Your task to perform on an android device: turn off notifications in google photos Image 0: 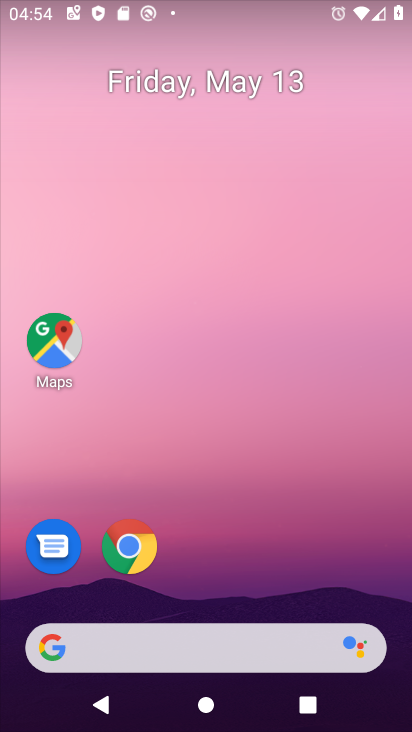
Step 0: drag from (220, 520) to (358, 0)
Your task to perform on an android device: turn off notifications in google photos Image 1: 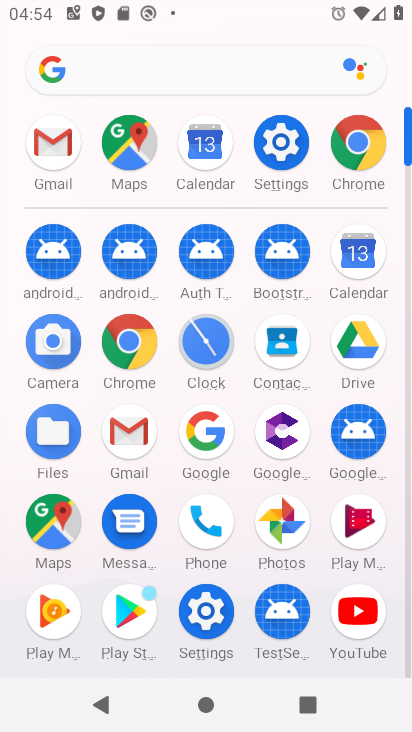
Step 1: click (289, 534)
Your task to perform on an android device: turn off notifications in google photos Image 2: 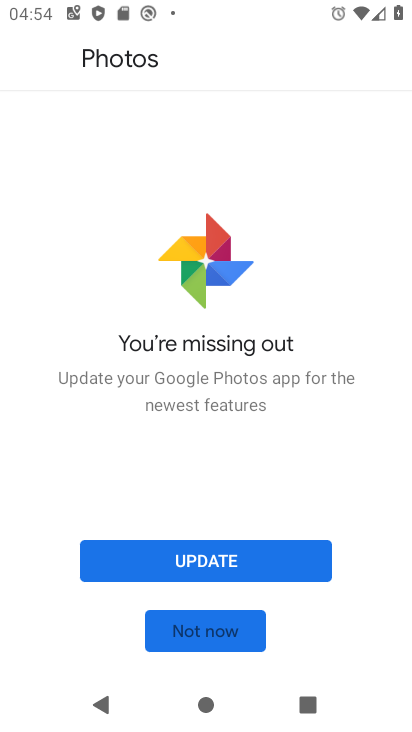
Step 2: click (235, 630)
Your task to perform on an android device: turn off notifications in google photos Image 3: 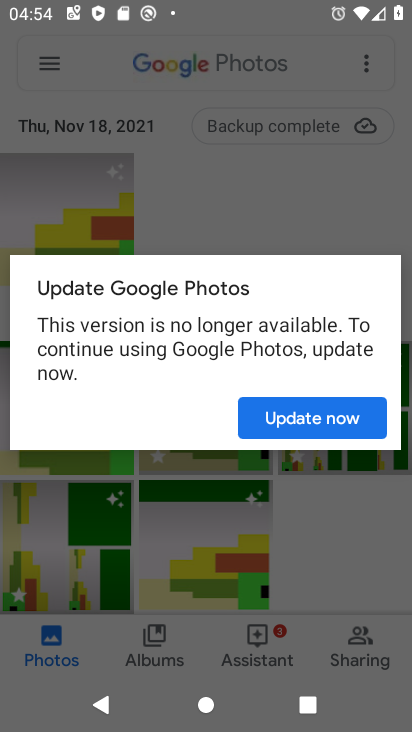
Step 3: click (315, 417)
Your task to perform on an android device: turn off notifications in google photos Image 4: 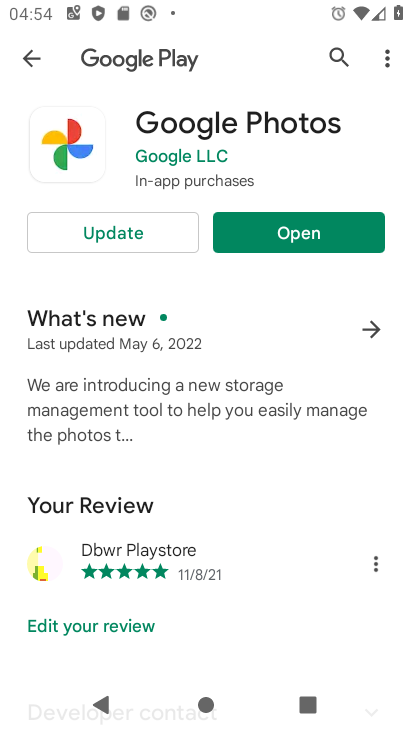
Step 4: click (256, 236)
Your task to perform on an android device: turn off notifications in google photos Image 5: 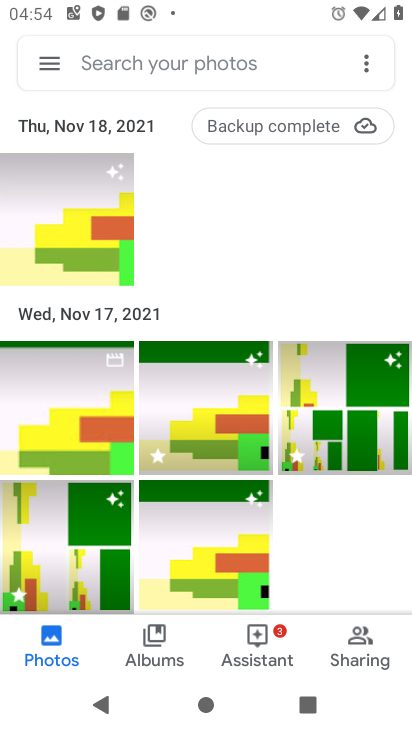
Step 5: click (59, 63)
Your task to perform on an android device: turn off notifications in google photos Image 6: 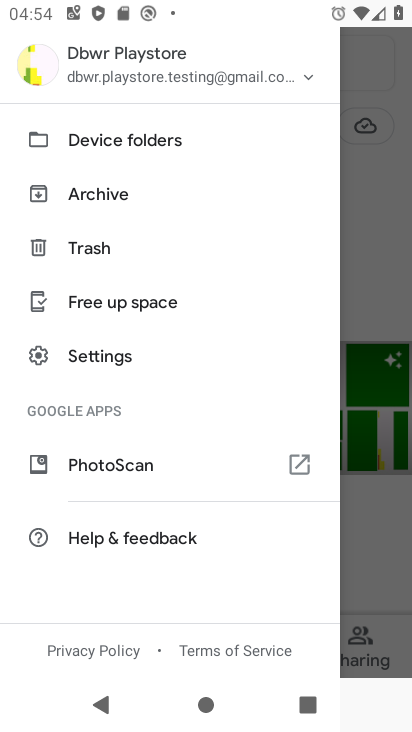
Step 6: click (103, 366)
Your task to perform on an android device: turn off notifications in google photos Image 7: 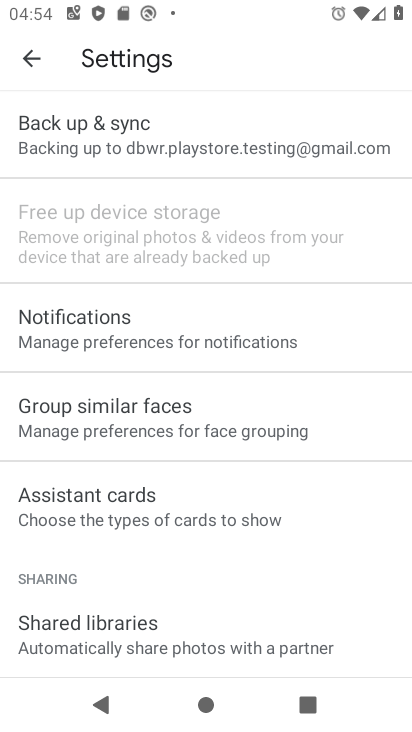
Step 7: click (157, 343)
Your task to perform on an android device: turn off notifications in google photos Image 8: 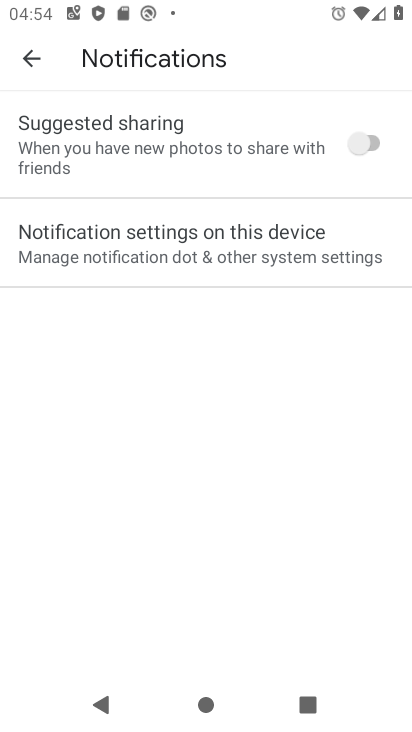
Step 8: click (236, 252)
Your task to perform on an android device: turn off notifications in google photos Image 9: 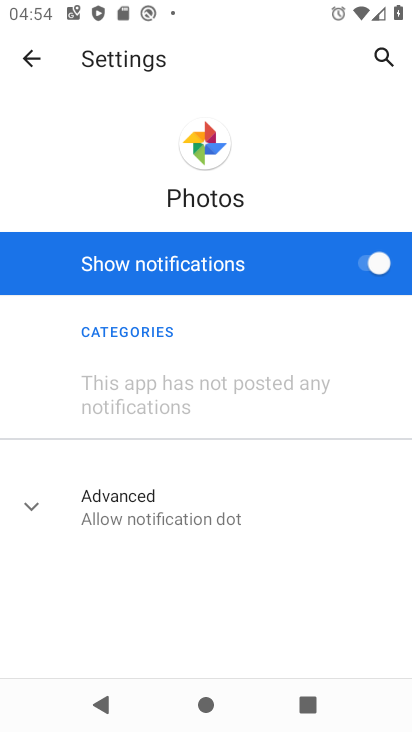
Step 9: click (355, 274)
Your task to perform on an android device: turn off notifications in google photos Image 10: 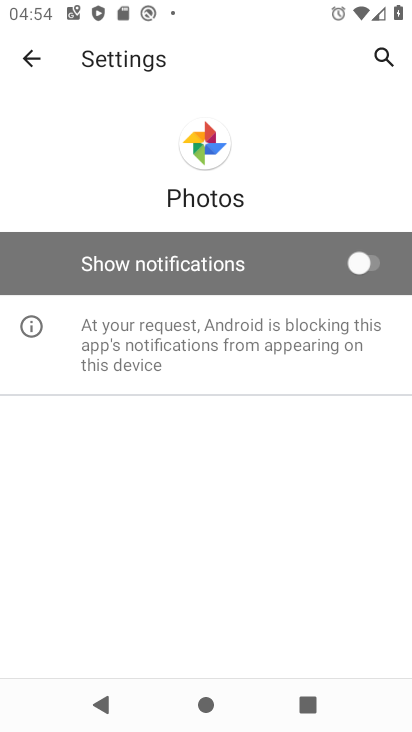
Step 10: task complete